Your task to perform on an android device: toggle javascript in the chrome app Image 0: 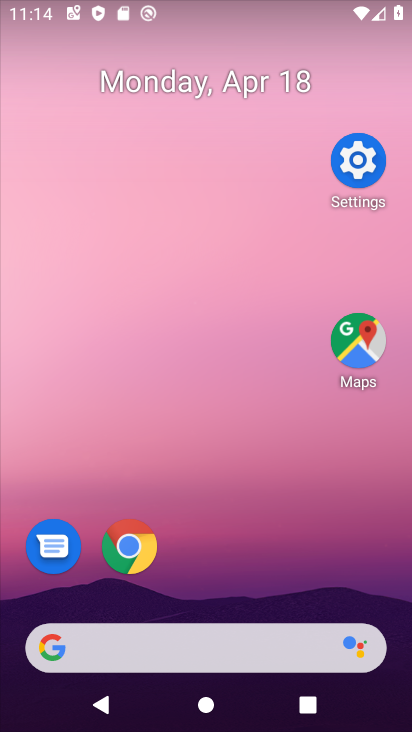
Step 0: drag from (300, 703) to (242, 116)
Your task to perform on an android device: toggle javascript in the chrome app Image 1: 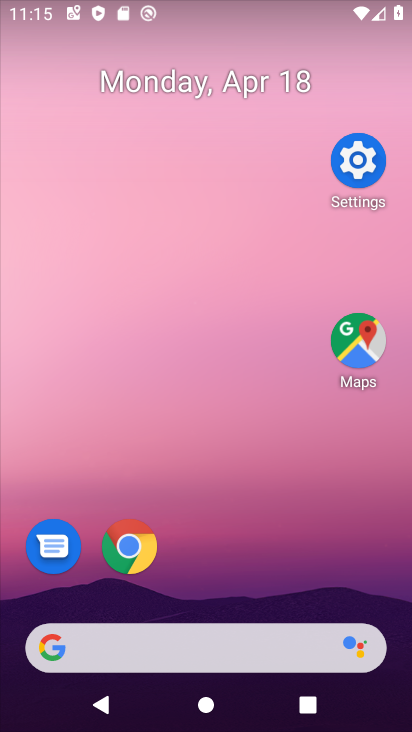
Step 1: drag from (327, 635) to (156, 94)
Your task to perform on an android device: toggle javascript in the chrome app Image 2: 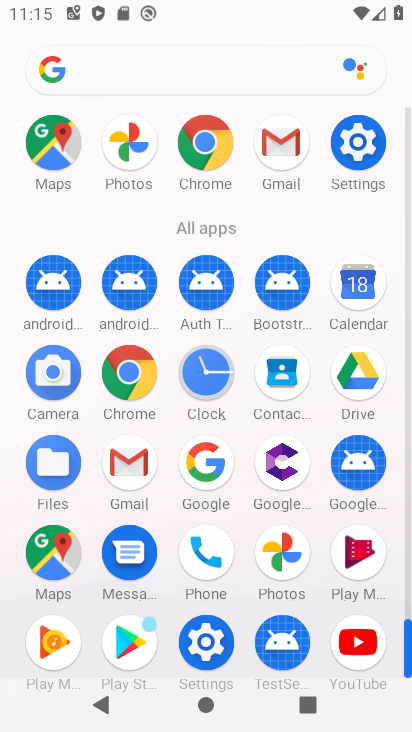
Step 2: click (204, 127)
Your task to perform on an android device: toggle javascript in the chrome app Image 3: 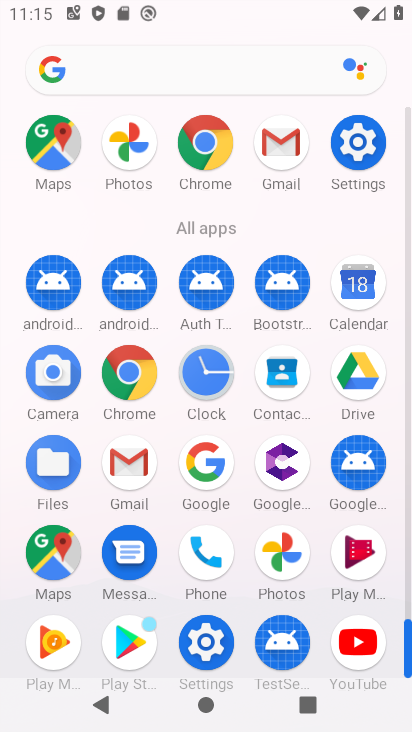
Step 3: click (204, 149)
Your task to perform on an android device: toggle javascript in the chrome app Image 4: 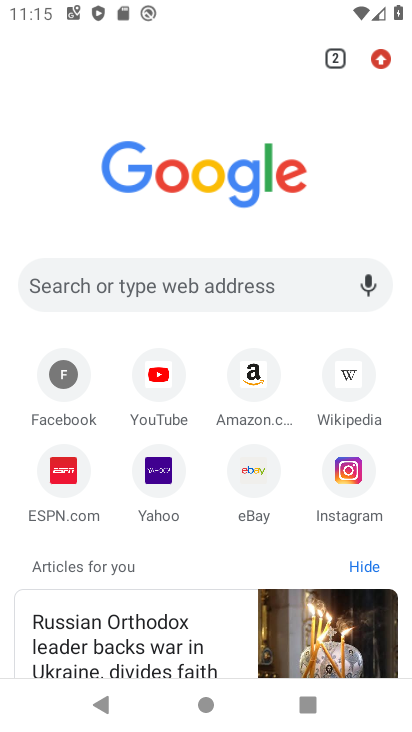
Step 4: click (371, 56)
Your task to perform on an android device: toggle javascript in the chrome app Image 5: 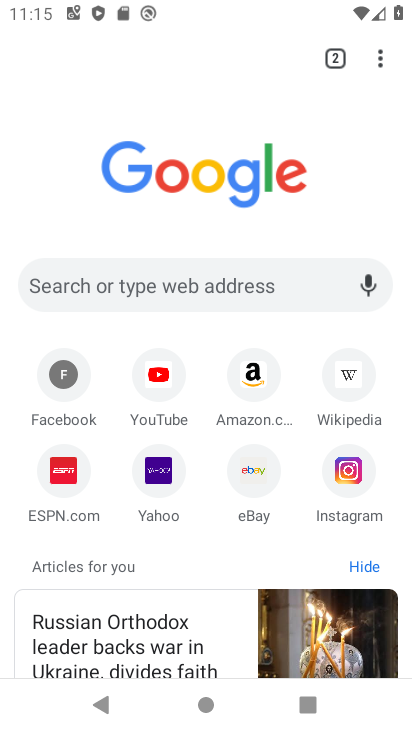
Step 5: click (382, 49)
Your task to perform on an android device: toggle javascript in the chrome app Image 6: 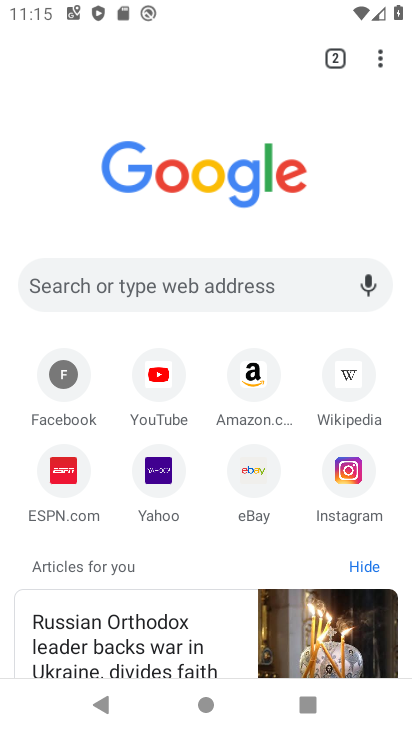
Step 6: click (383, 55)
Your task to perform on an android device: toggle javascript in the chrome app Image 7: 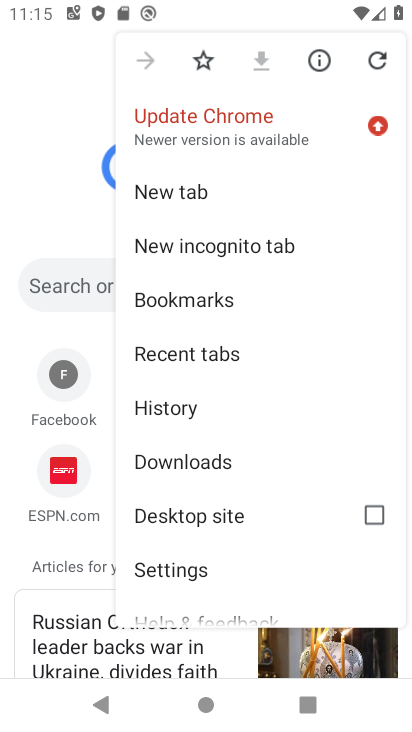
Step 7: click (154, 561)
Your task to perform on an android device: toggle javascript in the chrome app Image 8: 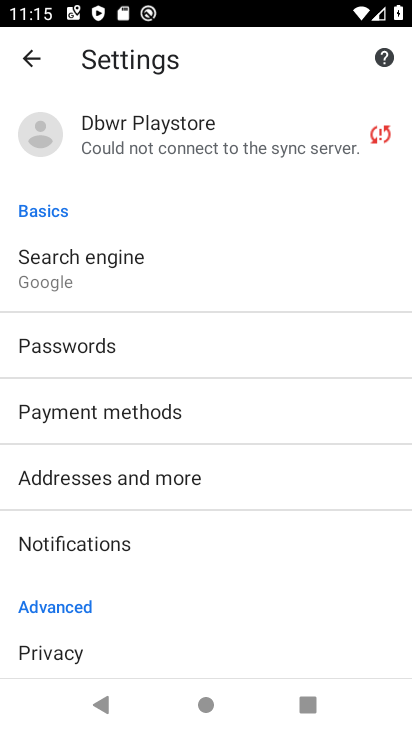
Step 8: drag from (151, 627) to (151, 168)
Your task to perform on an android device: toggle javascript in the chrome app Image 9: 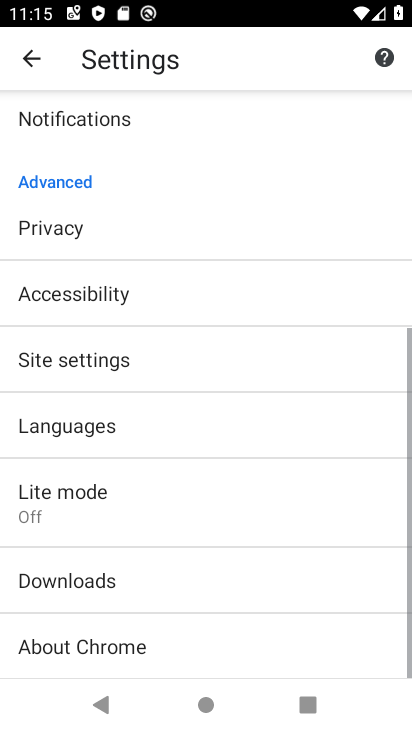
Step 9: drag from (180, 663) to (193, 306)
Your task to perform on an android device: toggle javascript in the chrome app Image 10: 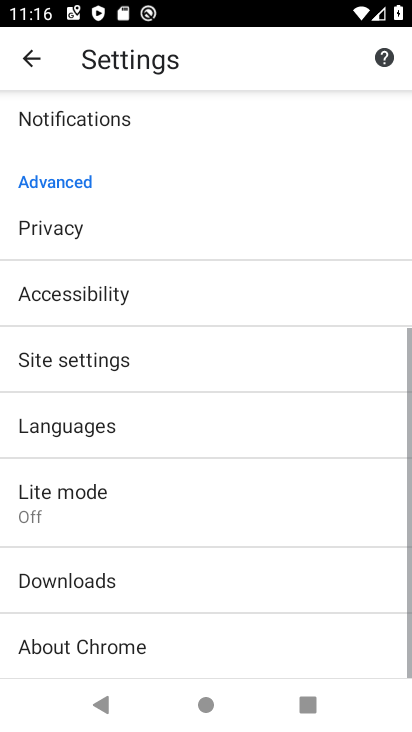
Step 10: click (77, 353)
Your task to perform on an android device: toggle javascript in the chrome app Image 11: 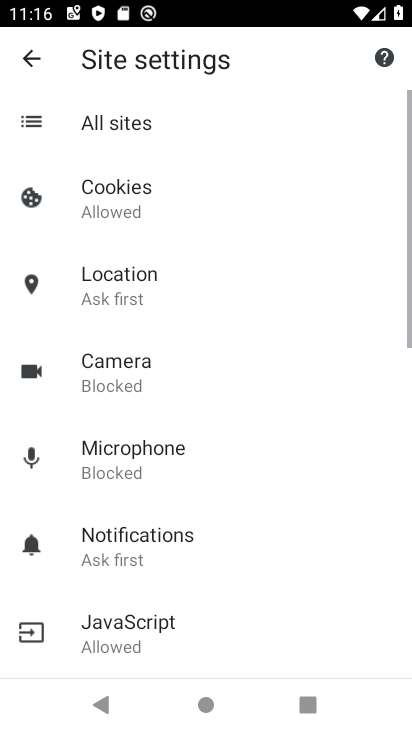
Step 11: drag from (212, 560) to (176, 159)
Your task to perform on an android device: toggle javascript in the chrome app Image 12: 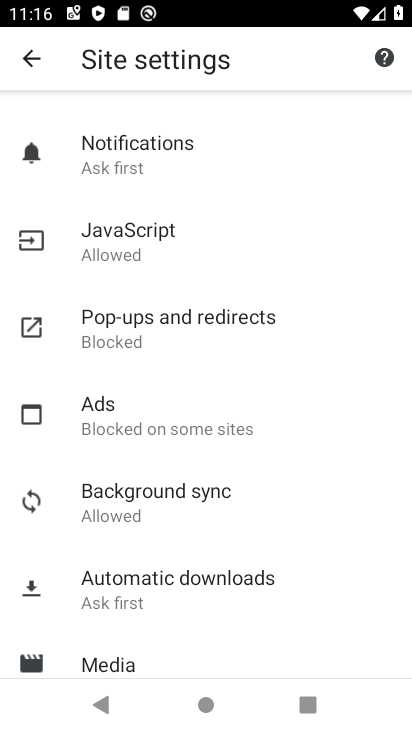
Step 12: click (113, 231)
Your task to perform on an android device: toggle javascript in the chrome app Image 13: 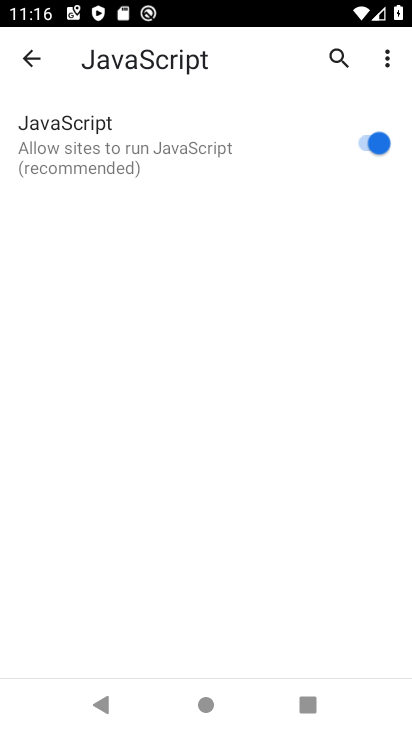
Step 13: click (370, 134)
Your task to perform on an android device: toggle javascript in the chrome app Image 14: 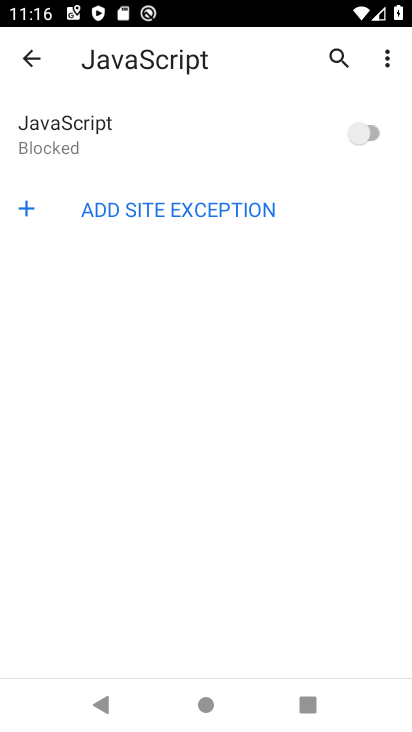
Step 14: task complete